Your task to perform on an android device: toggle wifi Image 0: 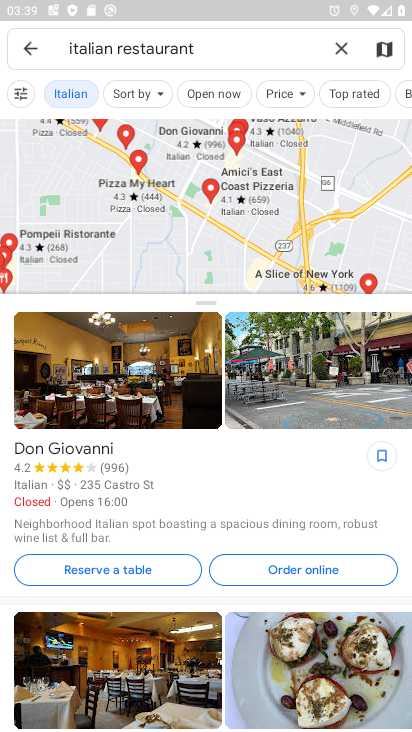
Step 0: drag from (93, 5) to (158, 647)
Your task to perform on an android device: toggle wifi Image 1: 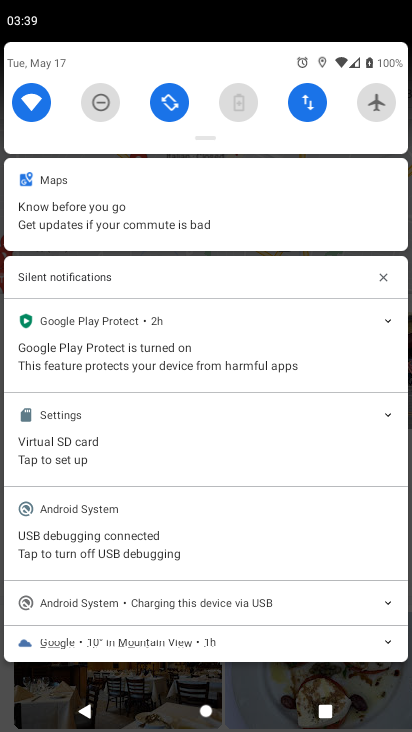
Step 1: click (35, 95)
Your task to perform on an android device: toggle wifi Image 2: 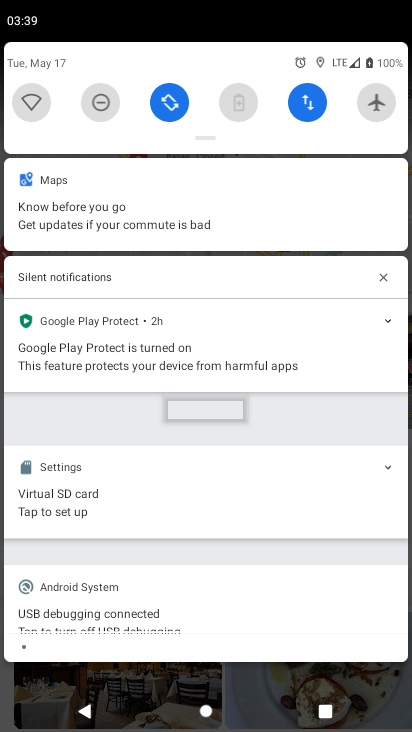
Step 2: task complete